Your task to perform on an android device: turn pop-ups off in chrome Image 0: 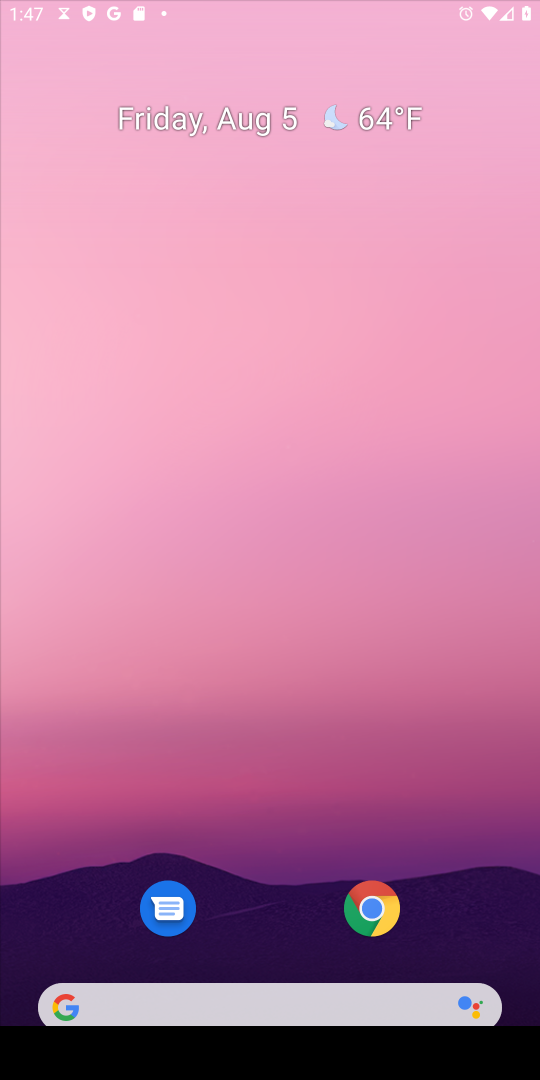
Step 0: press home button
Your task to perform on an android device: turn pop-ups off in chrome Image 1: 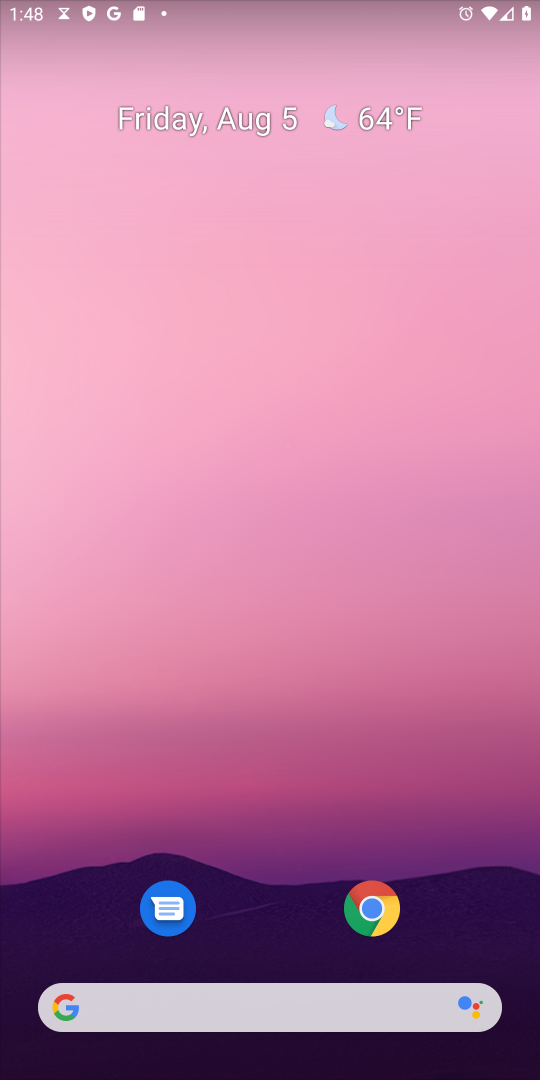
Step 1: drag from (290, 840) to (313, 243)
Your task to perform on an android device: turn pop-ups off in chrome Image 2: 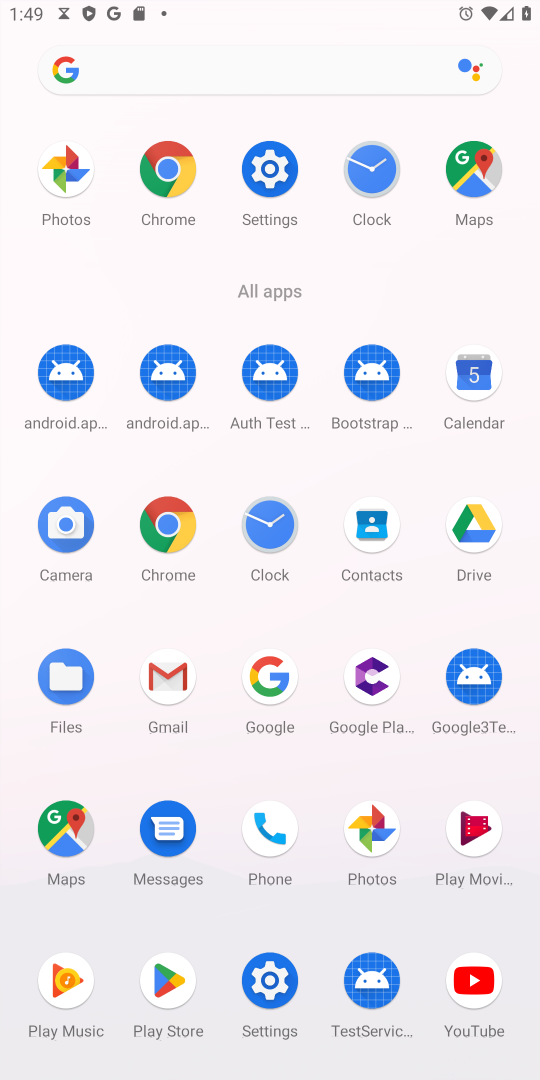
Step 2: click (164, 163)
Your task to perform on an android device: turn pop-ups off in chrome Image 3: 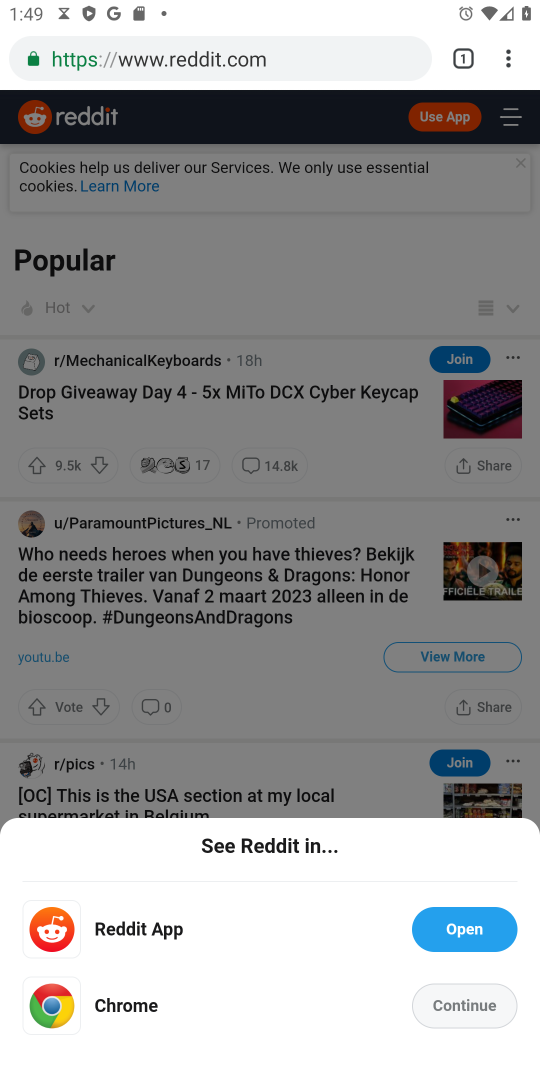
Step 3: drag from (511, 61) to (294, 703)
Your task to perform on an android device: turn pop-ups off in chrome Image 4: 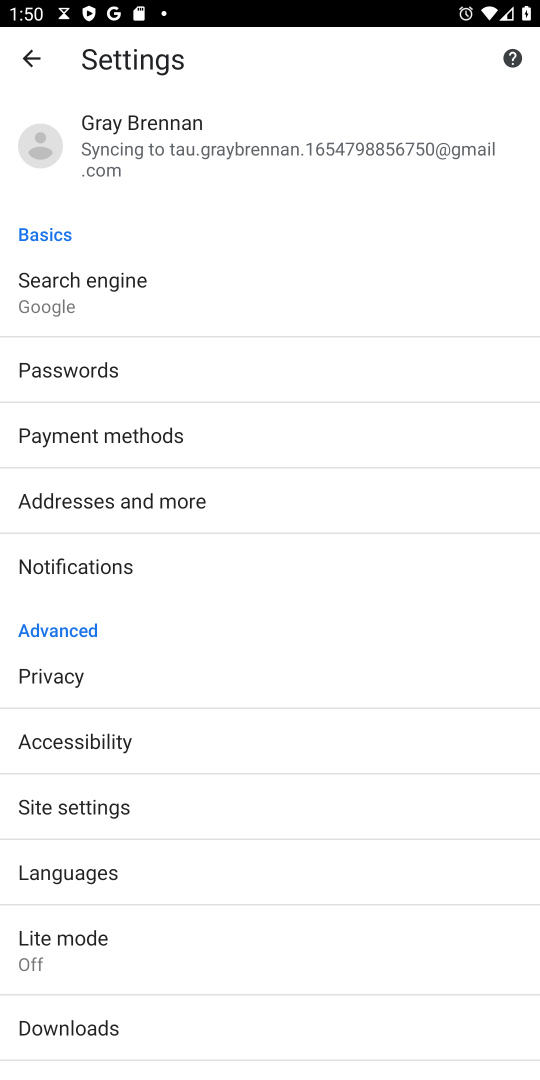
Step 4: click (83, 827)
Your task to perform on an android device: turn pop-ups off in chrome Image 5: 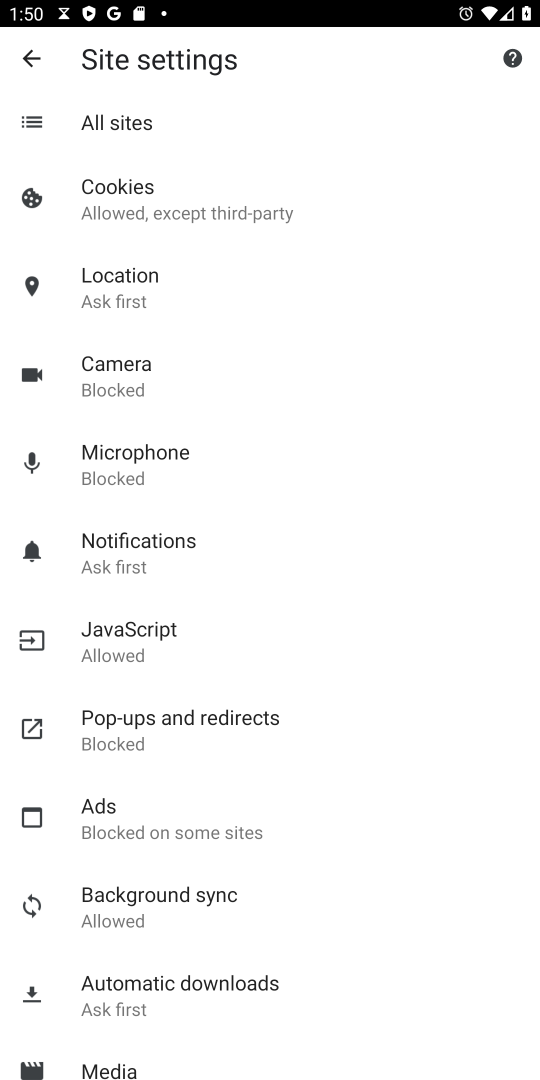
Step 5: click (109, 732)
Your task to perform on an android device: turn pop-ups off in chrome Image 6: 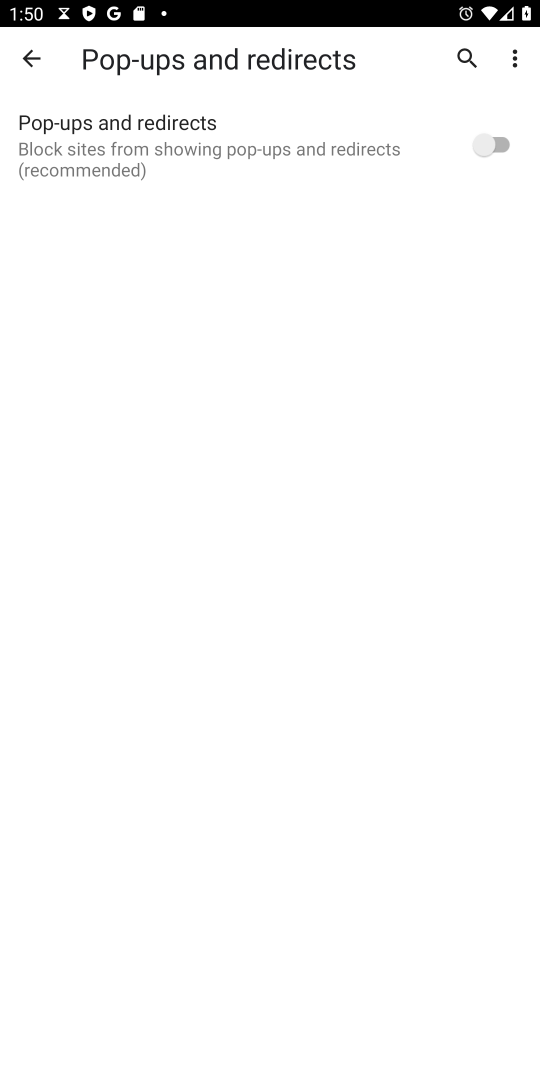
Step 6: task complete